Your task to perform on an android device: open a bookmark in the chrome app Image 0: 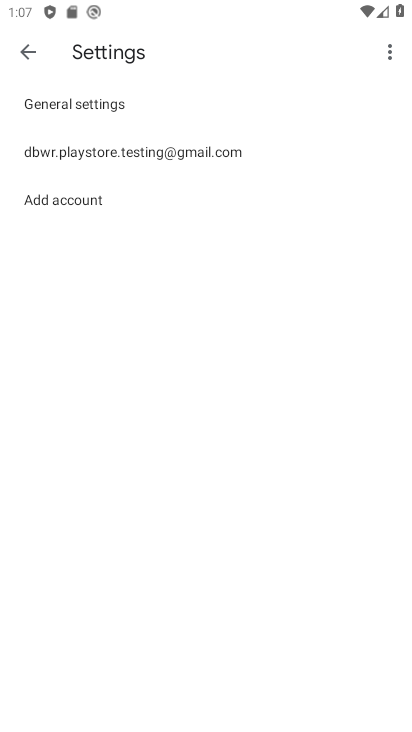
Step 0: press back button
Your task to perform on an android device: open a bookmark in the chrome app Image 1: 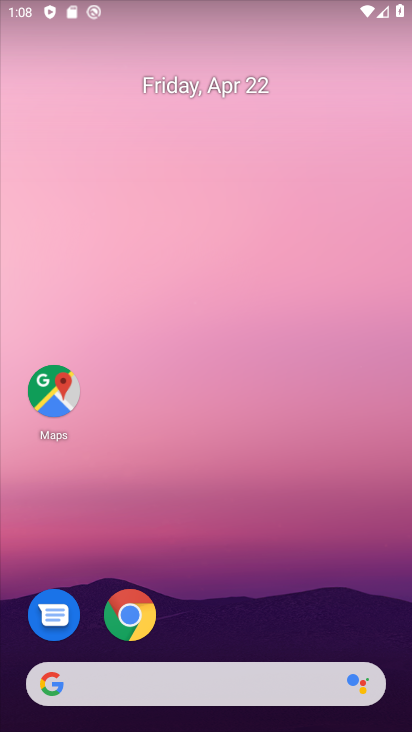
Step 1: click (133, 613)
Your task to perform on an android device: open a bookmark in the chrome app Image 2: 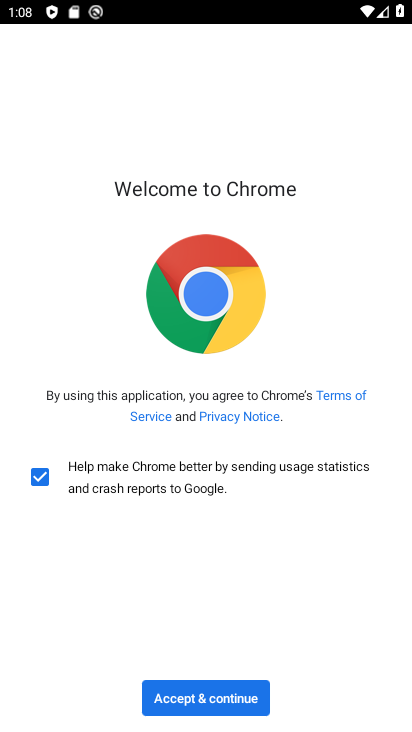
Step 2: click (210, 691)
Your task to perform on an android device: open a bookmark in the chrome app Image 3: 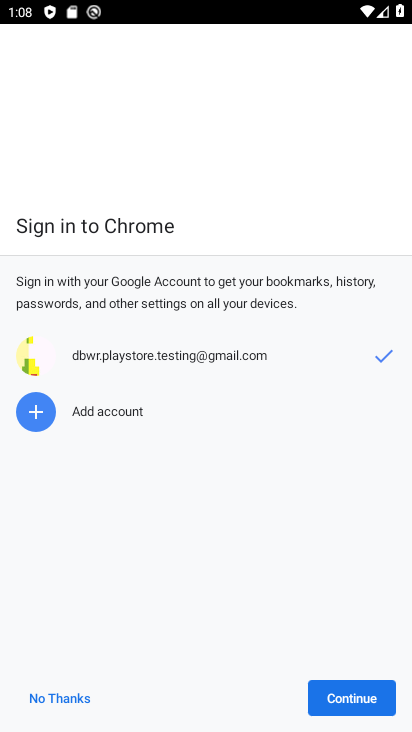
Step 3: click (349, 703)
Your task to perform on an android device: open a bookmark in the chrome app Image 4: 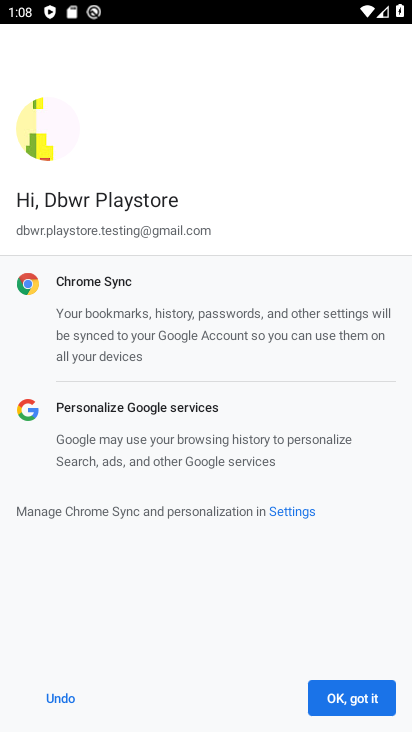
Step 4: click (350, 701)
Your task to perform on an android device: open a bookmark in the chrome app Image 5: 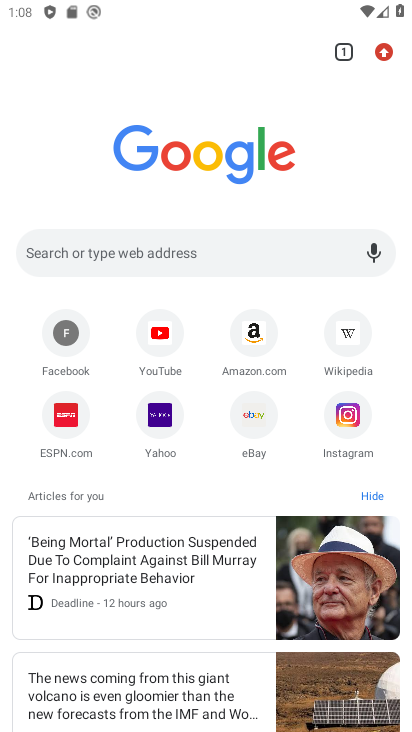
Step 5: task complete